Your task to perform on an android device: Open Android settings Image 0: 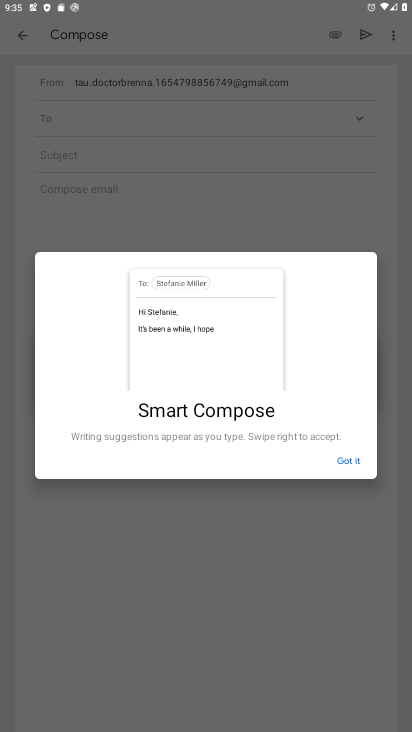
Step 0: press home button
Your task to perform on an android device: Open Android settings Image 1: 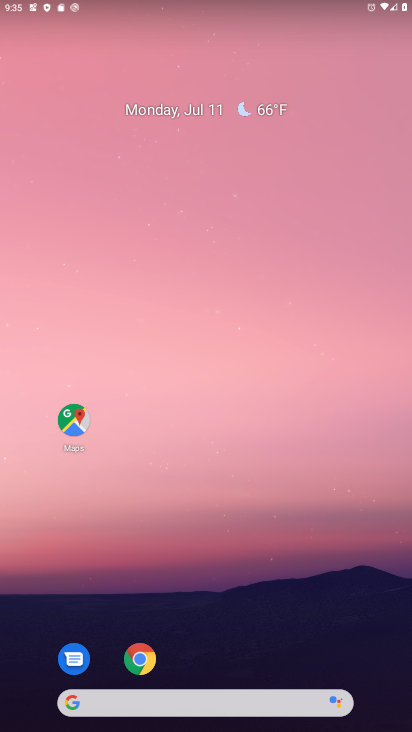
Step 1: drag from (334, 608) to (358, 108)
Your task to perform on an android device: Open Android settings Image 2: 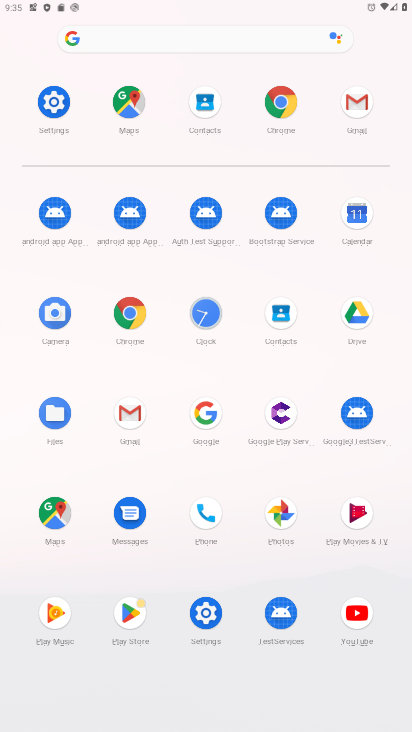
Step 2: click (210, 608)
Your task to perform on an android device: Open Android settings Image 3: 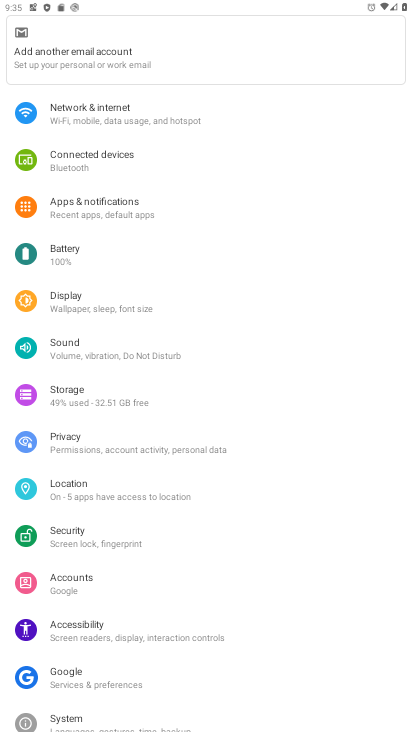
Step 3: drag from (294, 268) to (309, 421)
Your task to perform on an android device: Open Android settings Image 4: 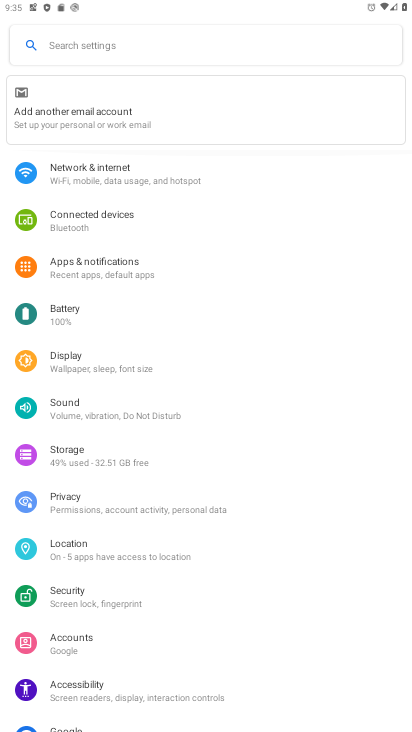
Step 4: drag from (342, 545) to (343, 478)
Your task to perform on an android device: Open Android settings Image 5: 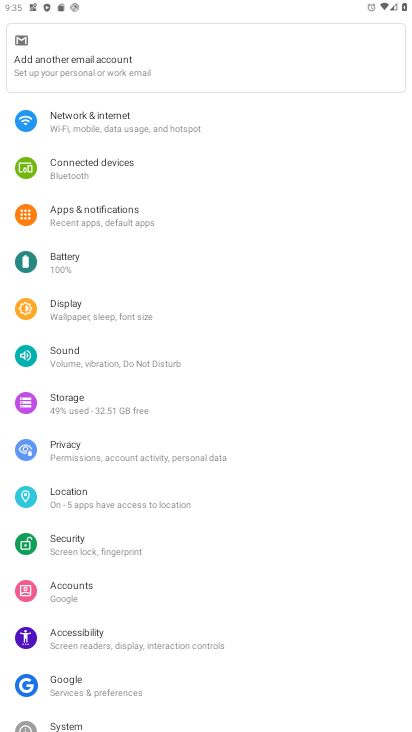
Step 5: drag from (345, 533) to (344, 461)
Your task to perform on an android device: Open Android settings Image 6: 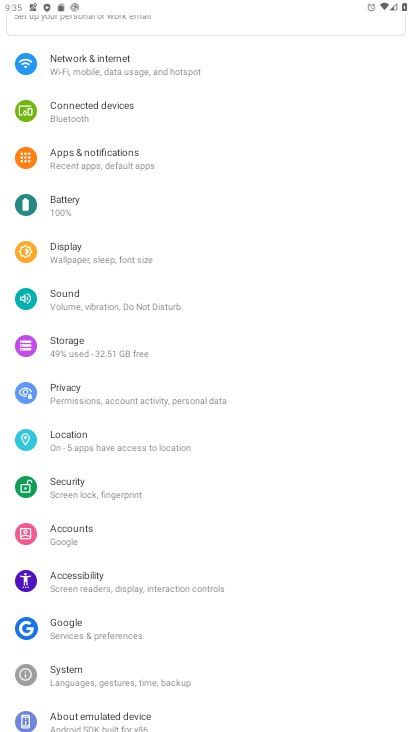
Step 6: drag from (342, 519) to (330, 419)
Your task to perform on an android device: Open Android settings Image 7: 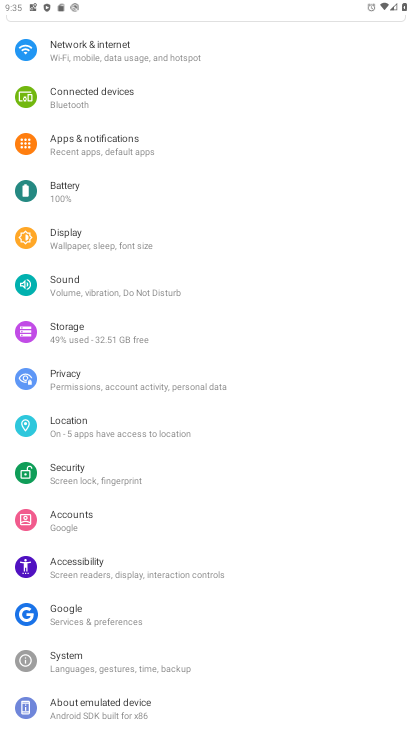
Step 7: click (207, 659)
Your task to perform on an android device: Open Android settings Image 8: 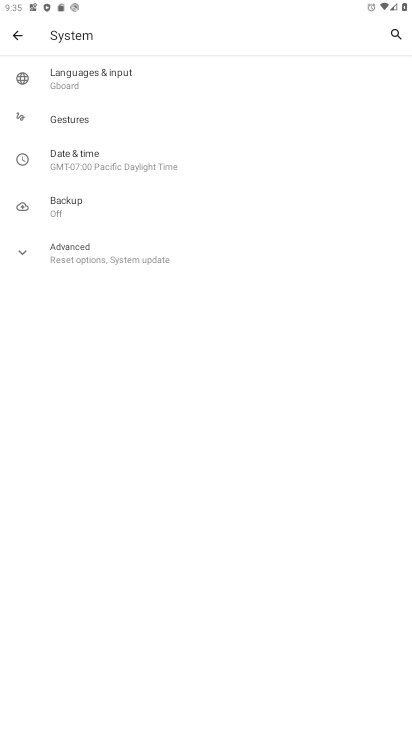
Step 8: click (179, 266)
Your task to perform on an android device: Open Android settings Image 9: 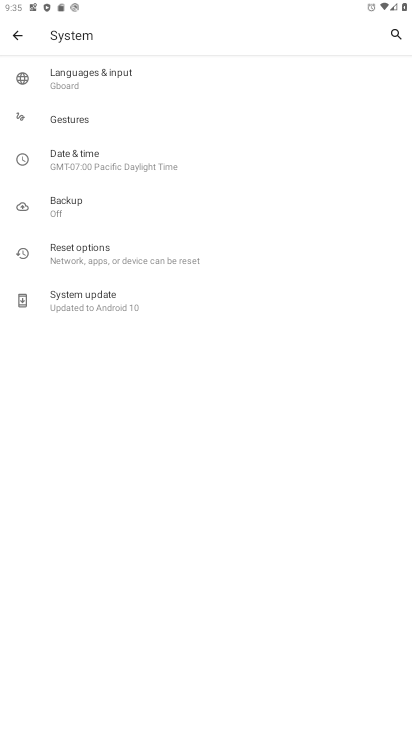
Step 9: task complete